Your task to perform on an android device: change alarm snooze length Image 0: 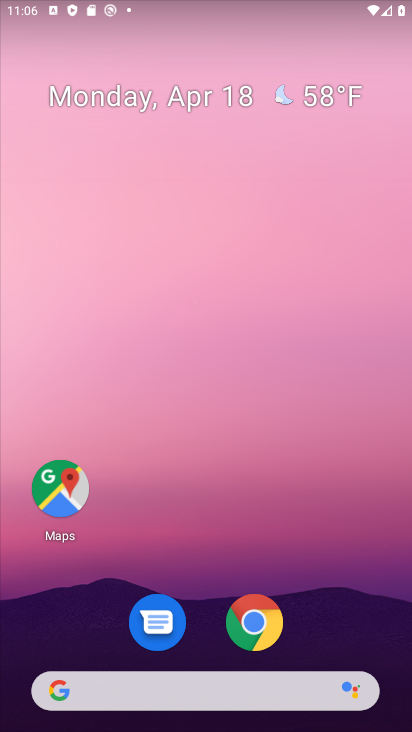
Step 0: drag from (307, 653) to (316, 130)
Your task to perform on an android device: change alarm snooze length Image 1: 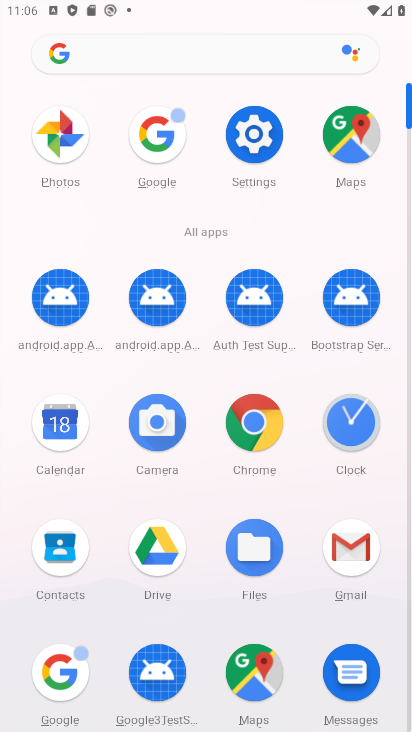
Step 1: drag from (276, 573) to (308, 219)
Your task to perform on an android device: change alarm snooze length Image 2: 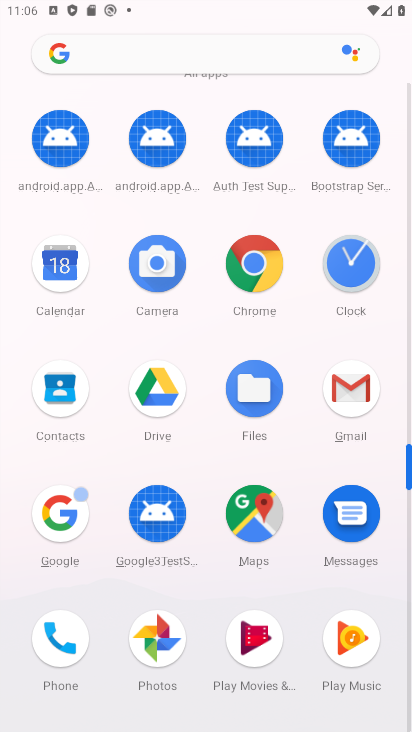
Step 2: click (336, 286)
Your task to perform on an android device: change alarm snooze length Image 3: 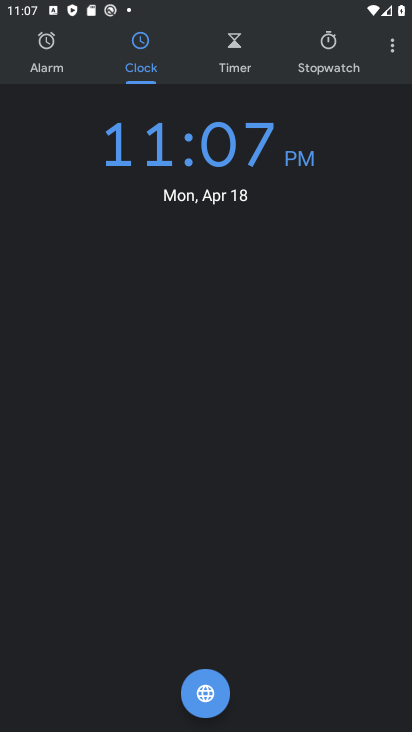
Step 3: click (397, 40)
Your task to perform on an android device: change alarm snooze length Image 4: 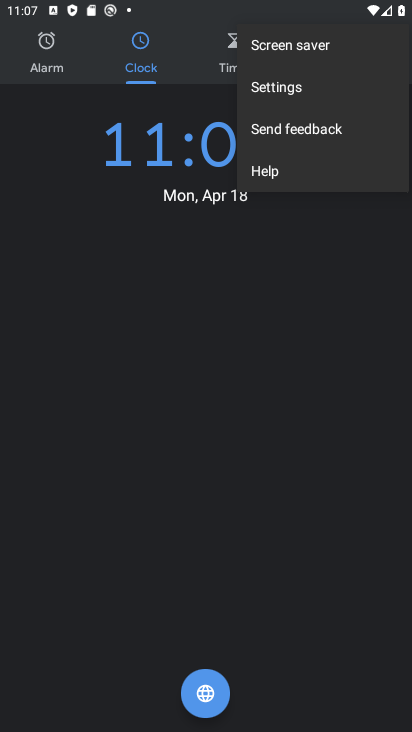
Step 4: click (308, 91)
Your task to perform on an android device: change alarm snooze length Image 5: 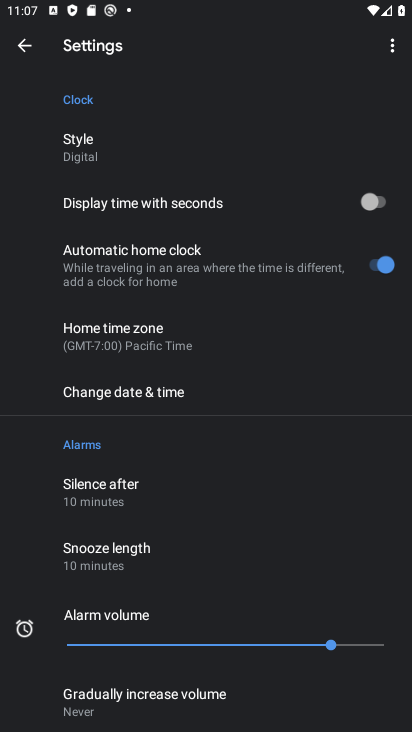
Step 5: click (150, 562)
Your task to perform on an android device: change alarm snooze length Image 6: 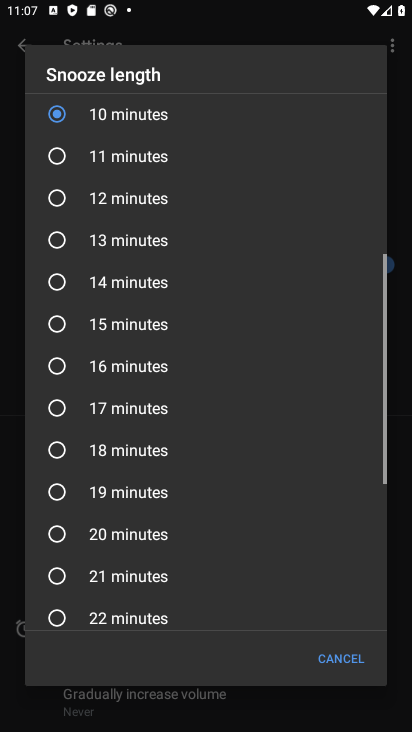
Step 6: click (53, 166)
Your task to perform on an android device: change alarm snooze length Image 7: 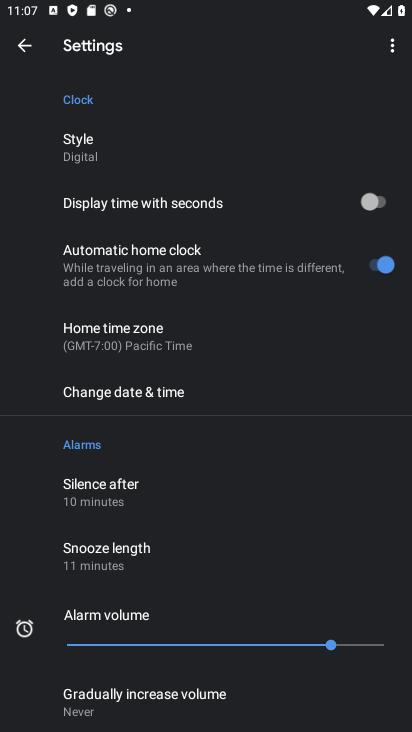
Step 7: task complete